Your task to perform on an android device: Open the calendar app, open the side menu, and click the "Day" option Image 0: 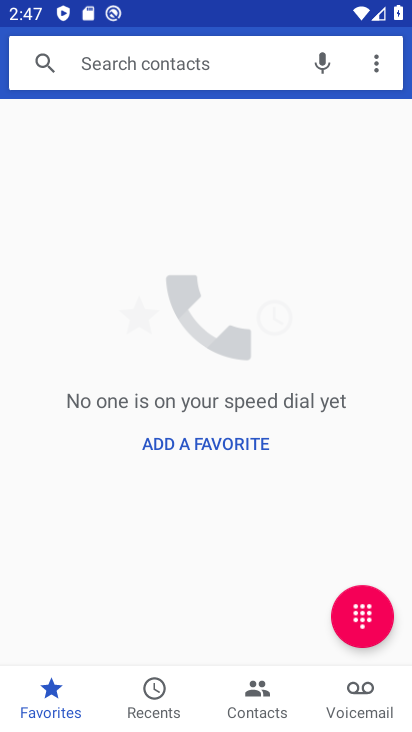
Step 0: press home button
Your task to perform on an android device: Open the calendar app, open the side menu, and click the "Day" option Image 1: 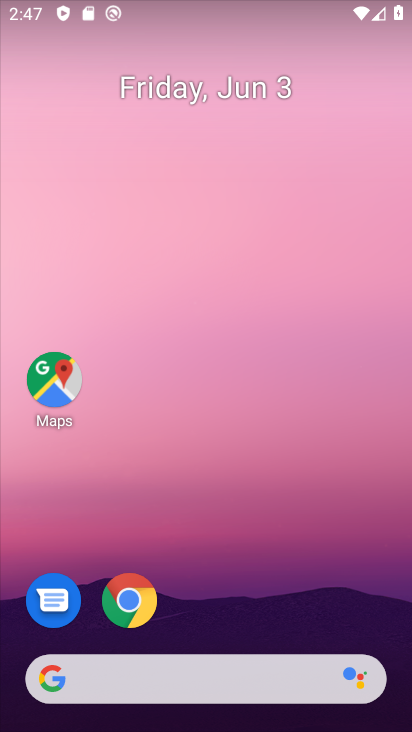
Step 1: drag from (178, 508) to (179, 112)
Your task to perform on an android device: Open the calendar app, open the side menu, and click the "Day" option Image 2: 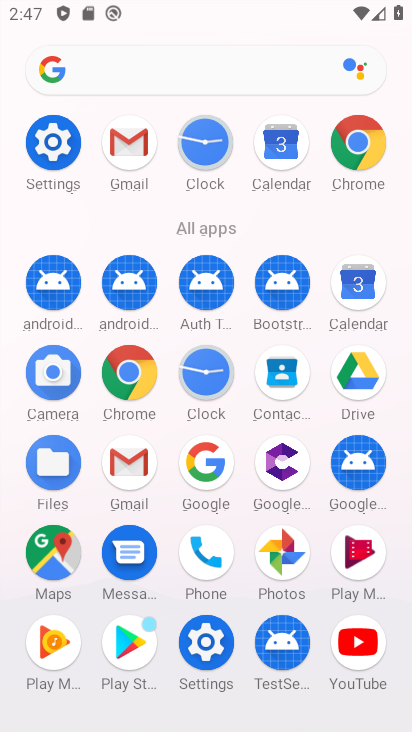
Step 2: click (352, 300)
Your task to perform on an android device: Open the calendar app, open the side menu, and click the "Day" option Image 3: 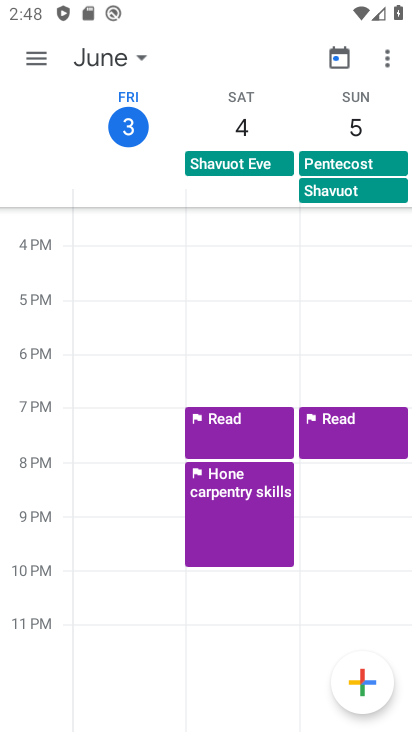
Step 3: click (41, 69)
Your task to perform on an android device: Open the calendar app, open the side menu, and click the "Day" option Image 4: 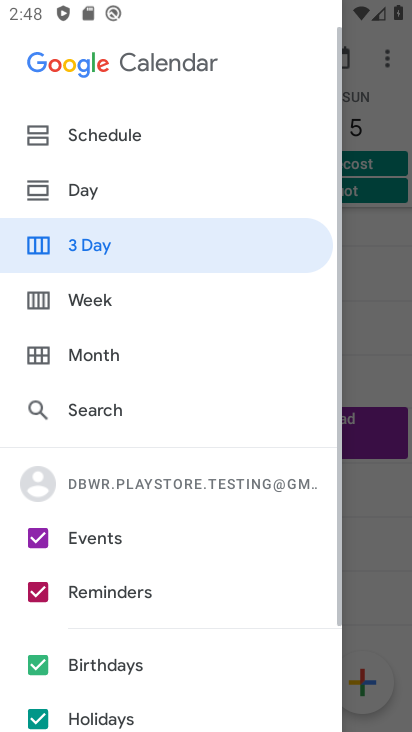
Step 4: click (110, 187)
Your task to perform on an android device: Open the calendar app, open the side menu, and click the "Day" option Image 5: 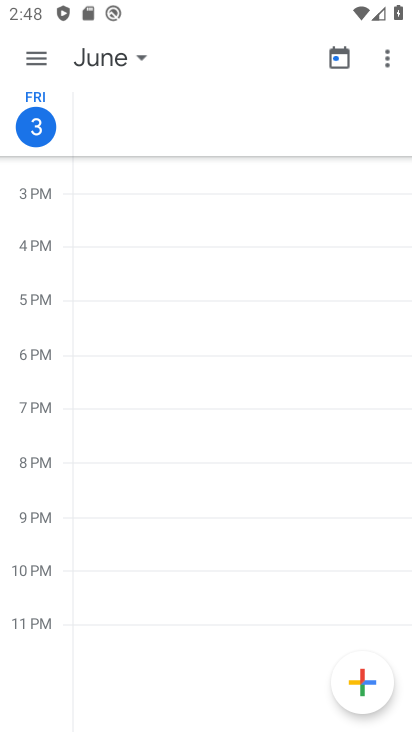
Step 5: task complete